Your task to perform on an android device: Open accessibility settings Image 0: 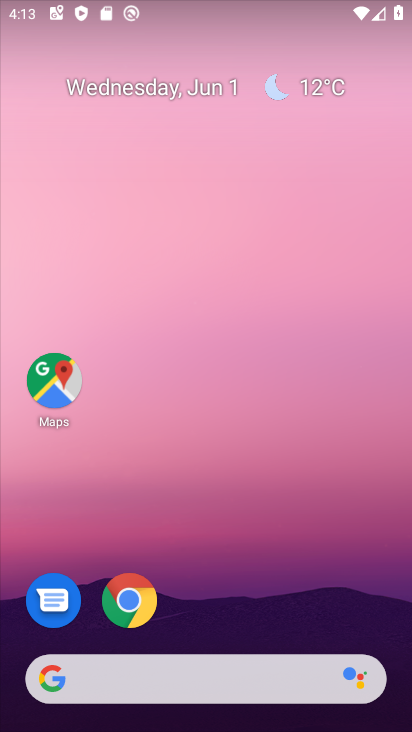
Step 0: drag from (371, 625) to (317, 203)
Your task to perform on an android device: Open accessibility settings Image 1: 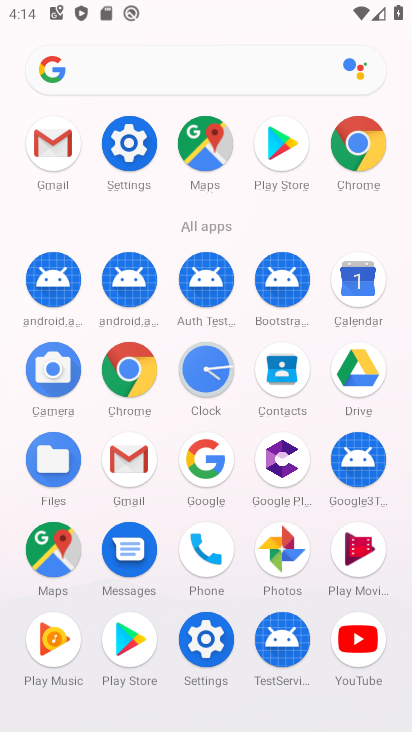
Step 1: click (210, 640)
Your task to perform on an android device: Open accessibility settings Image 2: 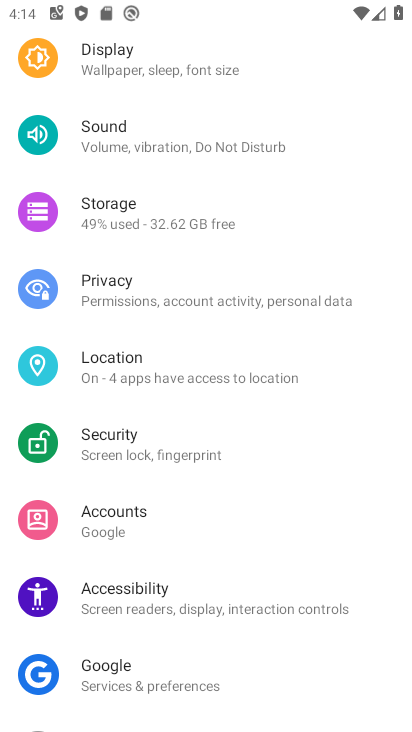
Step 2: click (111, 579)
Your task to perform on an android device: Open accessibility settings Image 3: 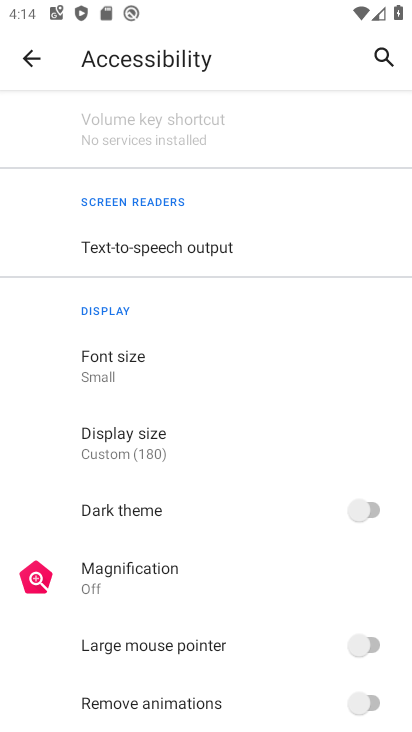
Step 3: task complete